Your task to perform on an android device: empty trash in google photos Image 0: 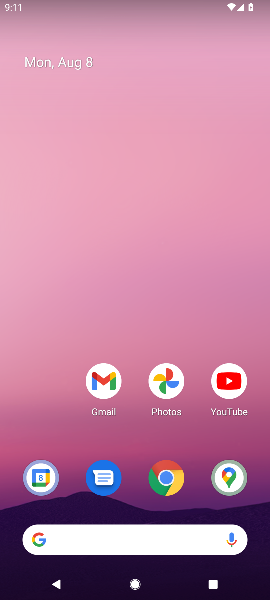
Step 0: click (168, 381)
Your task to perform on an android device: empty trash in google photos Image 1: 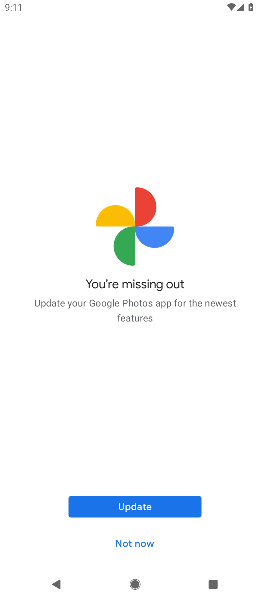
Step 1: click (126, 505)
Your task to perform on an android device: empty trash in google photos Image 2: 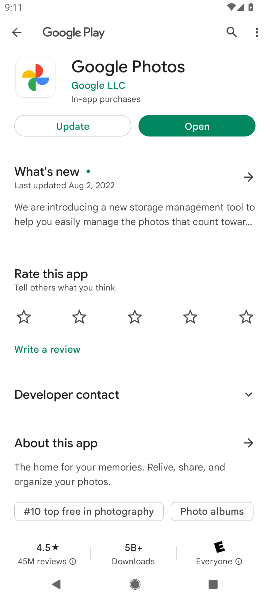
Step 2: click (88, 126)
Your task to perform on an android device: empty trash in google photos Image 3: 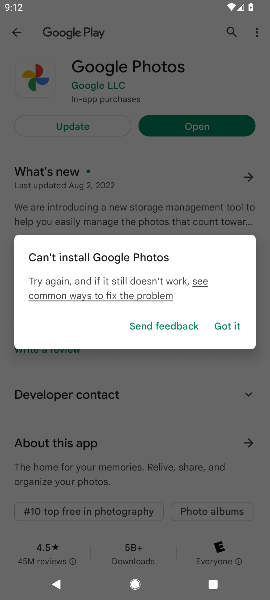
Step 3: click (218, 329)
Your task to perform on an android device: empty trash in google photos Image 4: 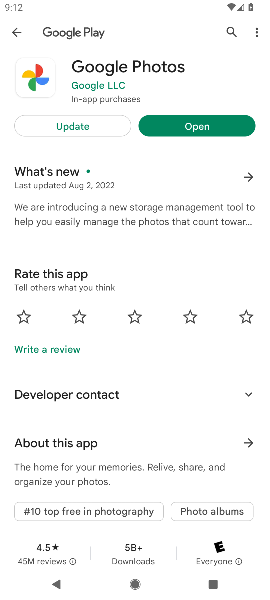
Step 4: click (211, 130)
Your task to perform on an android device: empty trash in google photos Image 5: 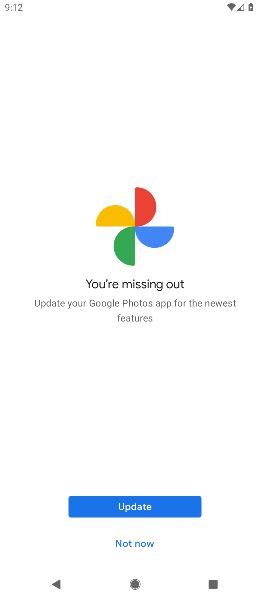
Step 5: task complete